Your task to perform on an android device: open sync settings in chrome Image 0: 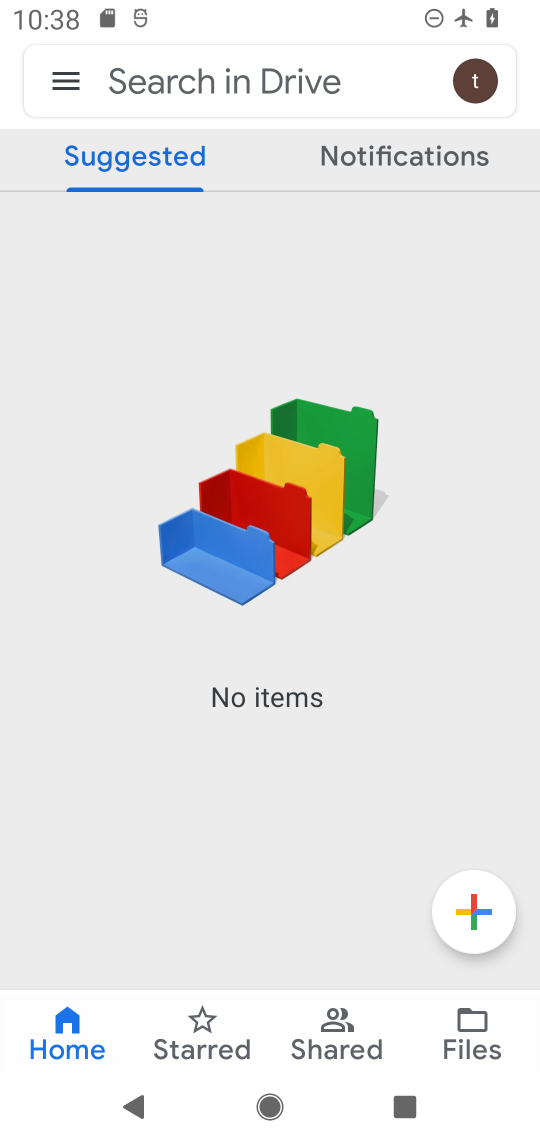
Step 0: press home button
Your task to perform on an android device: open sync settings in chrome Image 1: 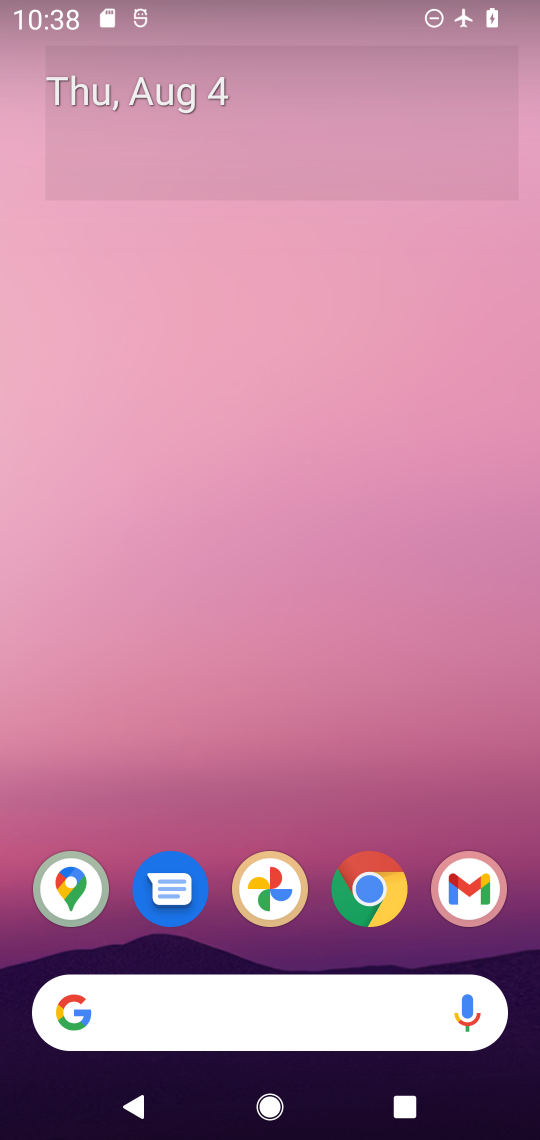
Step 1: drag from (327, 727) to (330, 236)
Your task to perform on an android device: open sync settings in chrome Image 2: 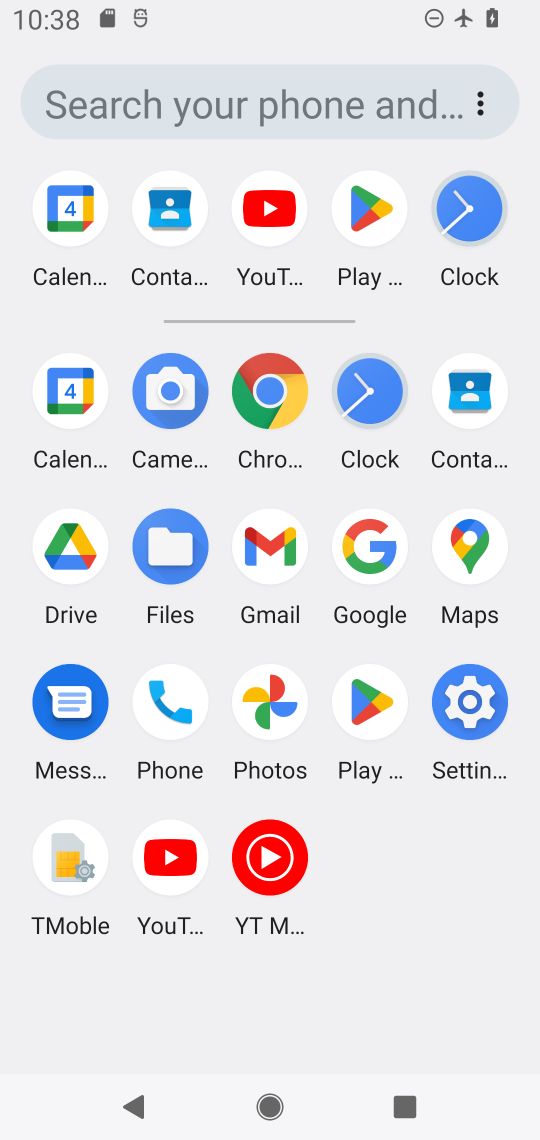
Step 2: click (270, 385)
Your task to perform on an android device: open sync settings in chrome Image 3: 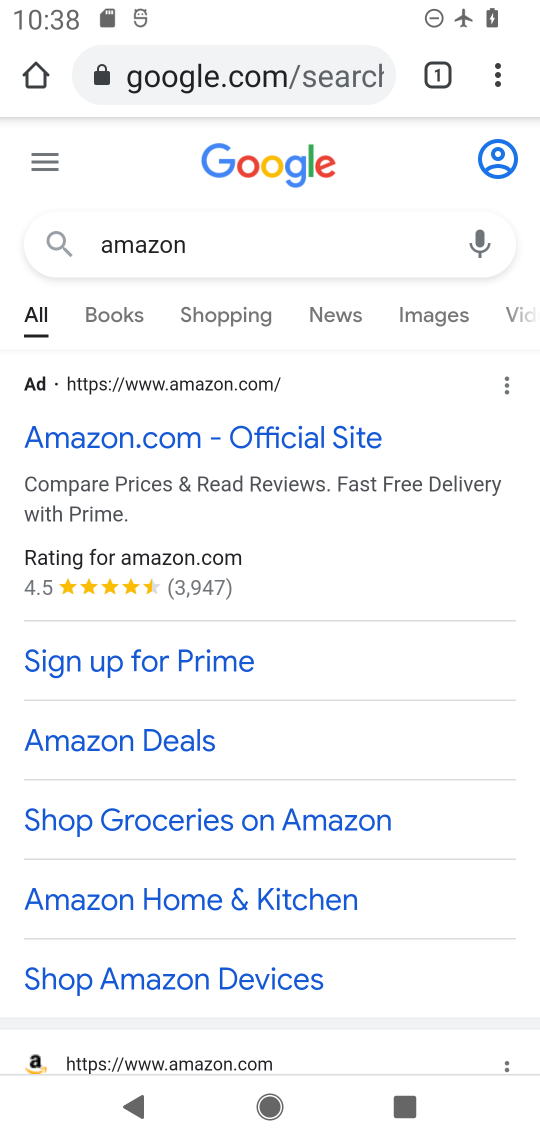
Step 3: click (501, 82)
Your task to perform on an android device: open sync settings in chrome Image 4: 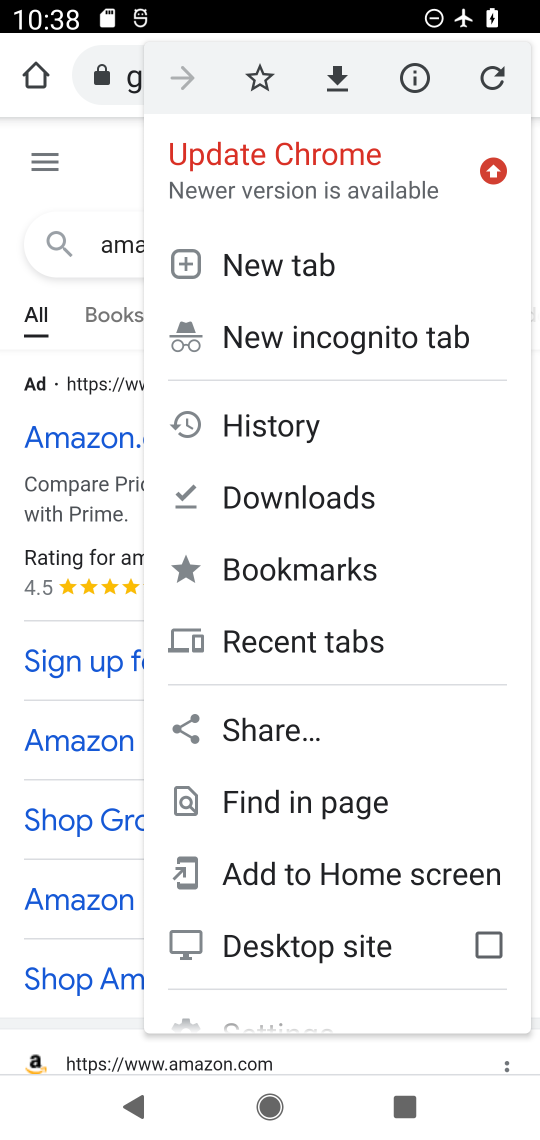
Step 4: drag from (454, 644) to (464, 429)
Your task to perform on an android device: open sync settings in chrome Image 5: 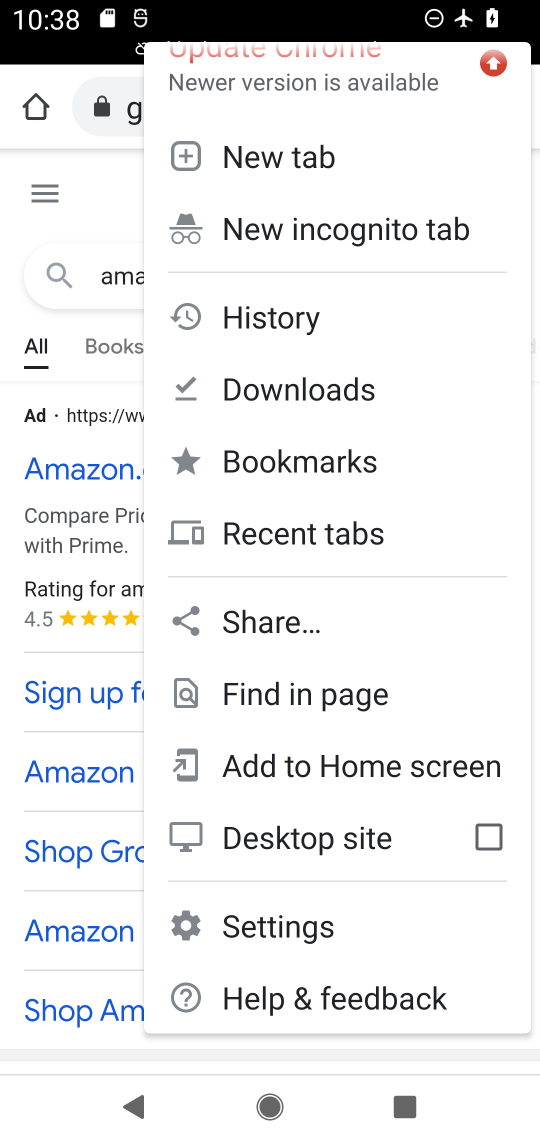
Step 5: click (287, 919)
Your task to perform on an android device: open sync settings in chrome Image 6: 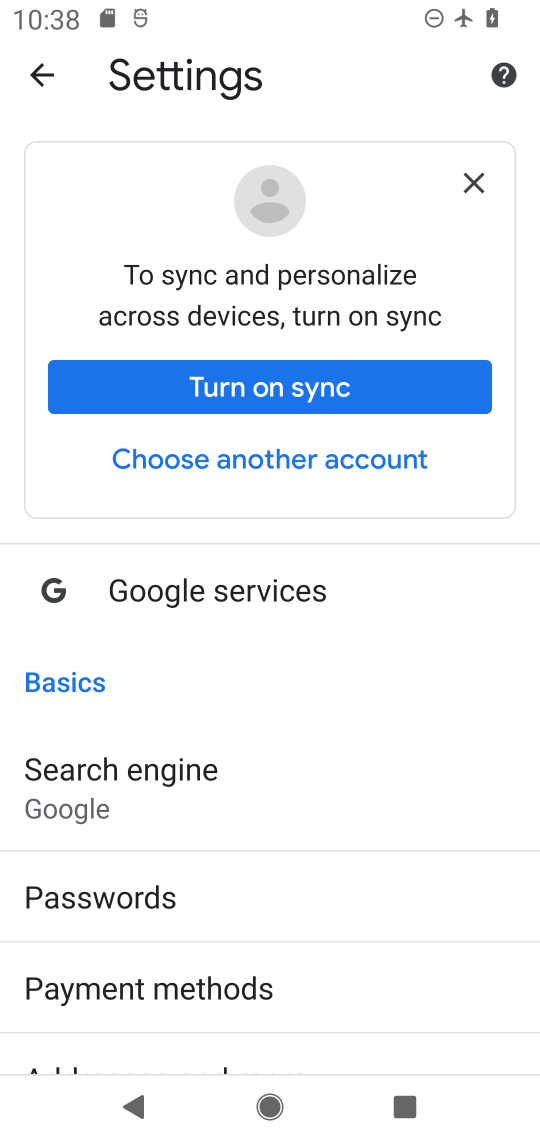
Step 6: drag from (395, 923) to (413, 703)
Your task to perform on an android device: open sync settings in chrome Image 7: 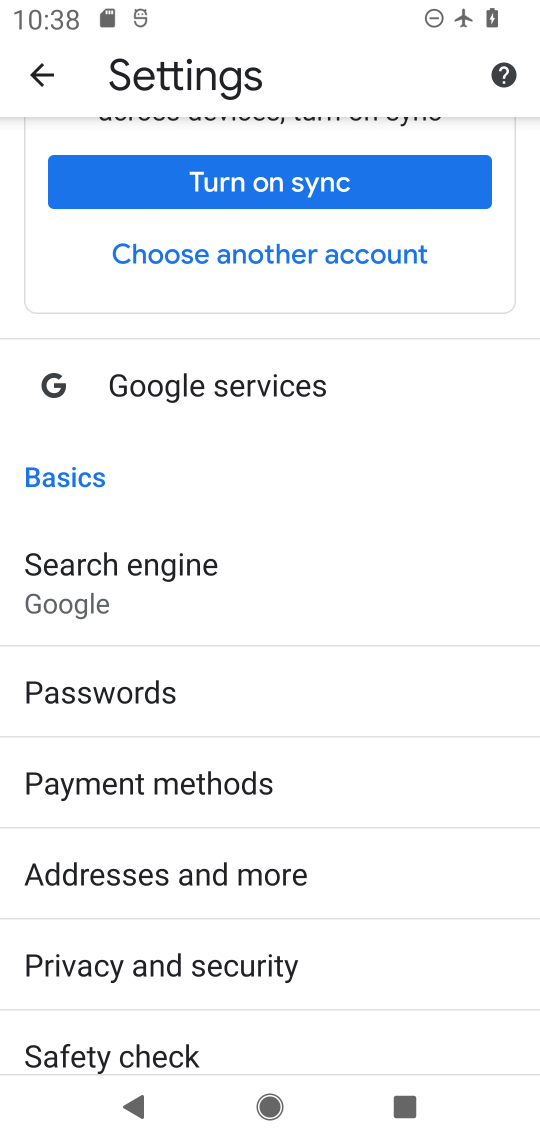
Step 7: drag from (411, 974) to (412, 753)
Your task to perform on an android device: open sync settings in chrome Image 8: 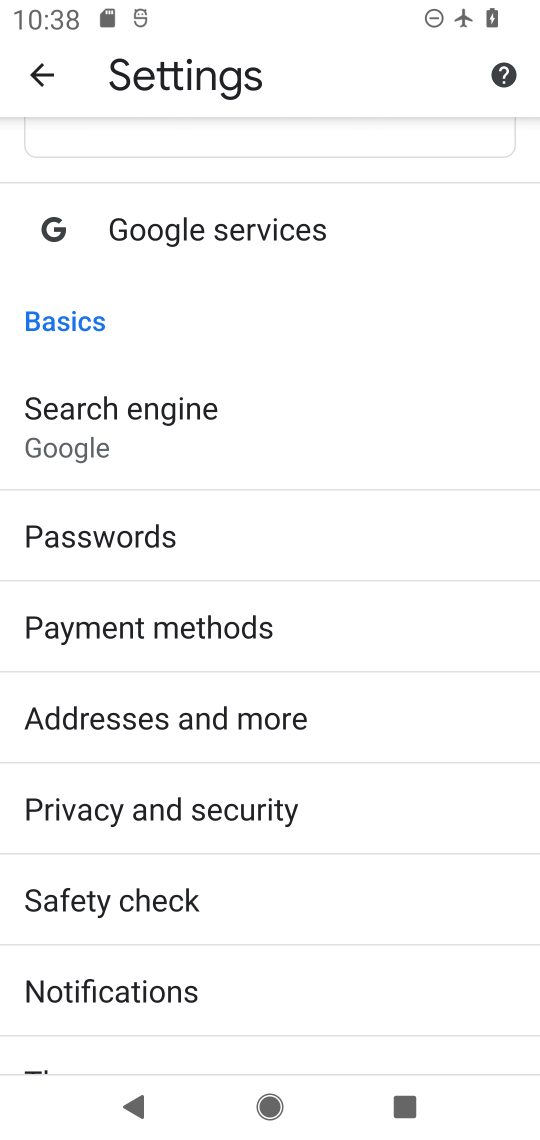
Step 8: drag from (390, 969) to (404, 766)
Your task to perform on an android device: open sync settings in chrome Image 9: 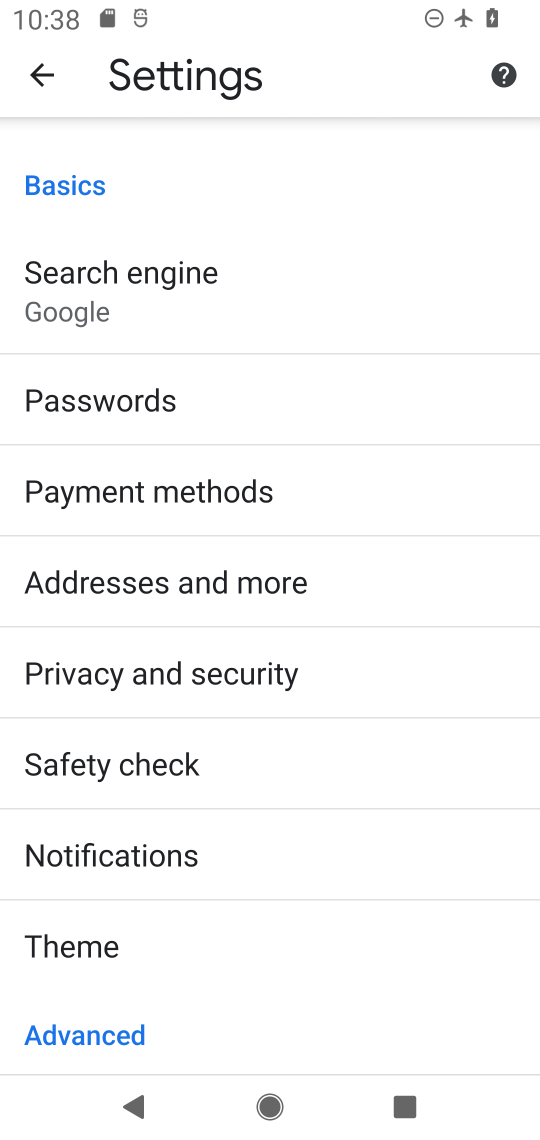
Step 9: drag from (388, 874) to (421, 689)
Your task to perform on an android device: open sync settings in chrome Image 10: 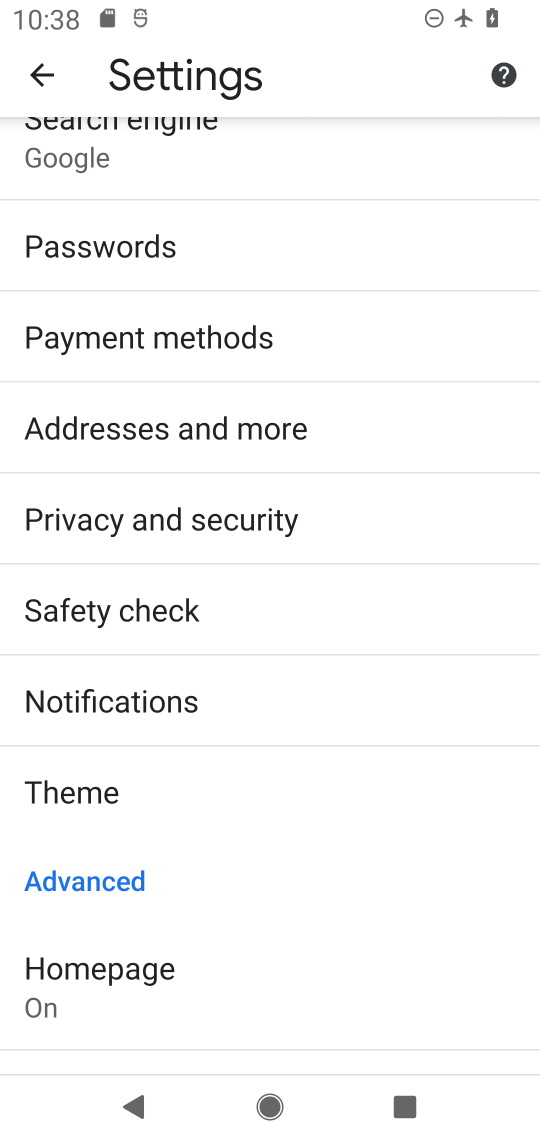
Step 10: drag from (384, 892) to (379, 729)
Your task to perform on an android device: open sync settings in chrome Image 11: 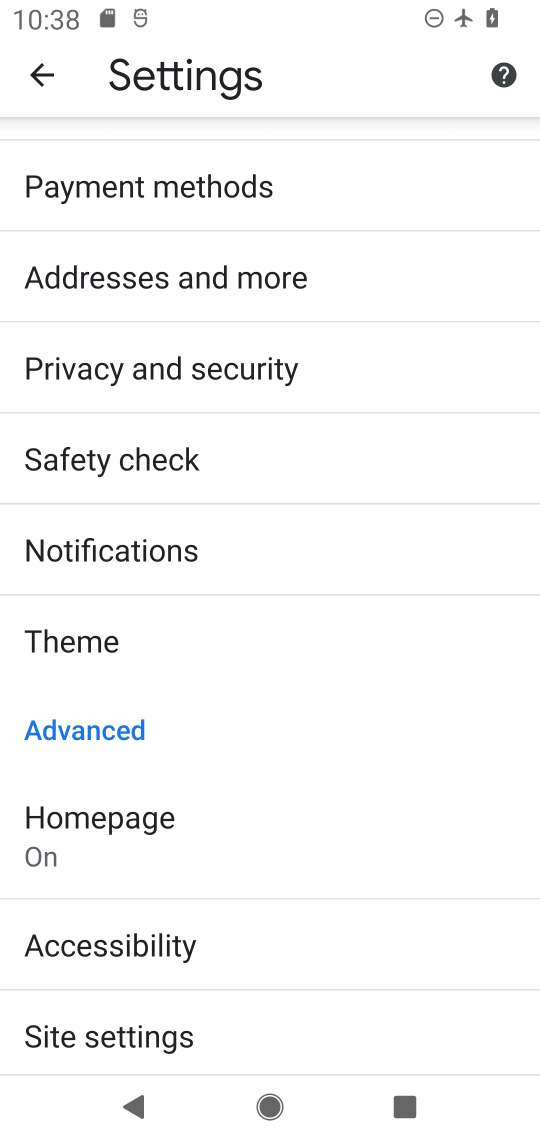
Step 11: drag from (377, 935) to (382, 749)
Your task to perform on an android device: open sync settings in chrome Image 12: 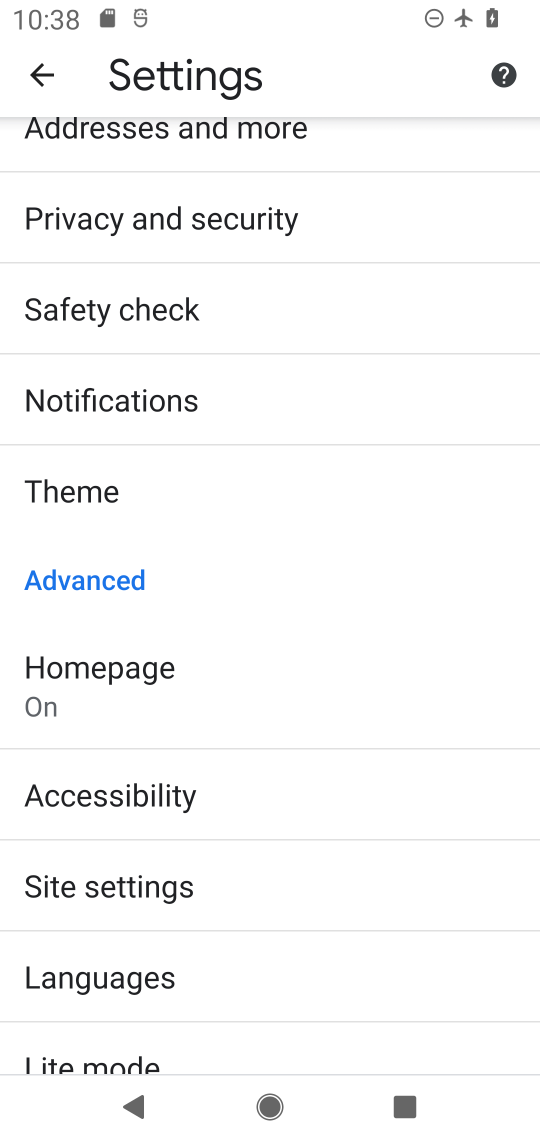
Step 12: drag from (367, 953) to (374, 747)
Your task to perform on an android device: open sync settings in chrome Image 13: 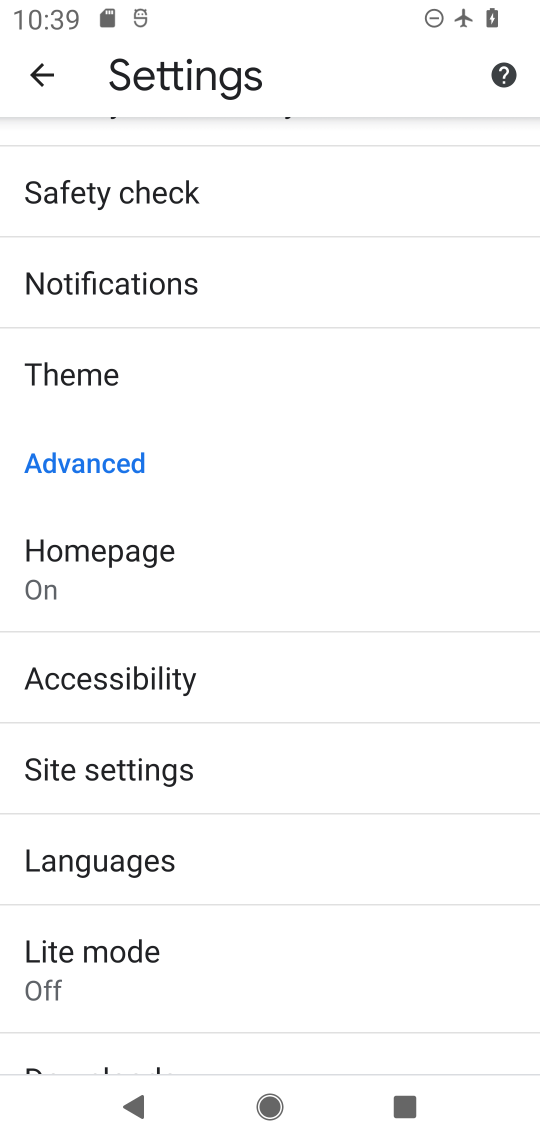
Step 13: drag from (361, 976) to (362, 727)
Your task to perform on an android device: open sync settings in chrome Image 14: 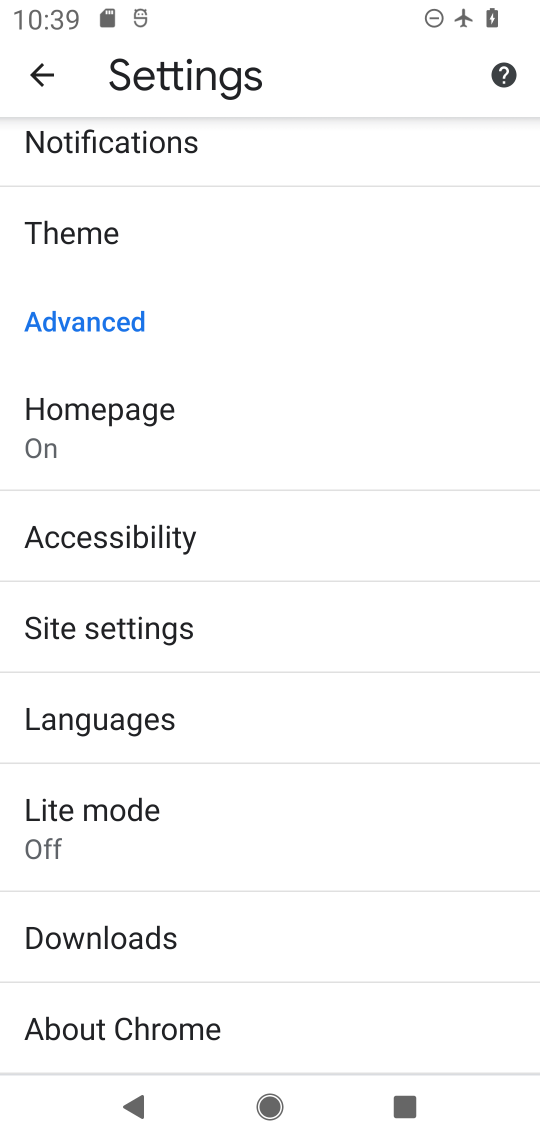
Step 14: click (272, 616)
Your task to perform on an android device: open sync settings in chrome Image 15: 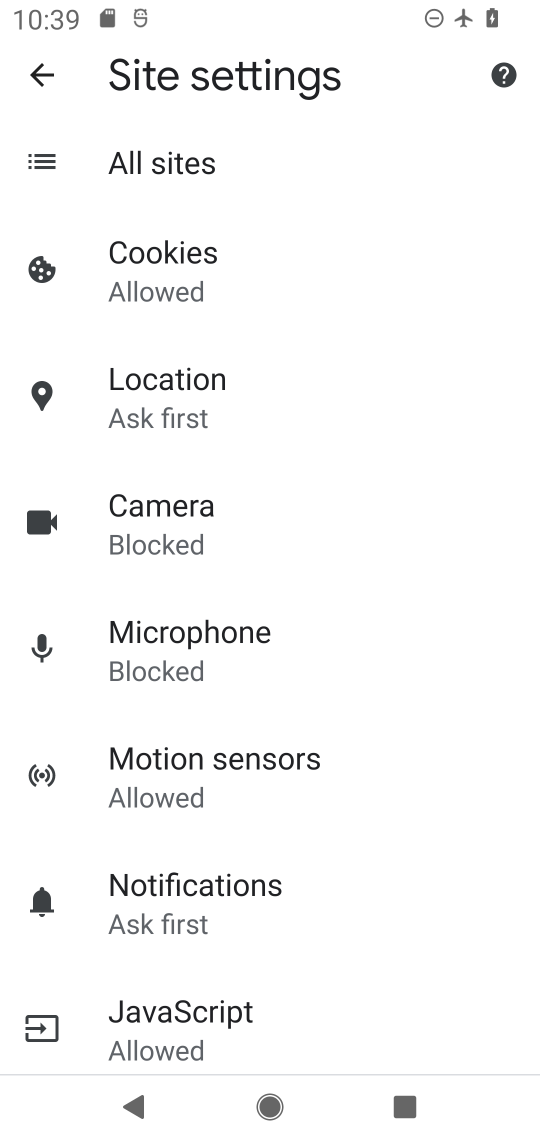
Step 15: drag from (387, 788) to (423, 587)
Your task to perform on an android device: open sync settings in chrome Image 16: 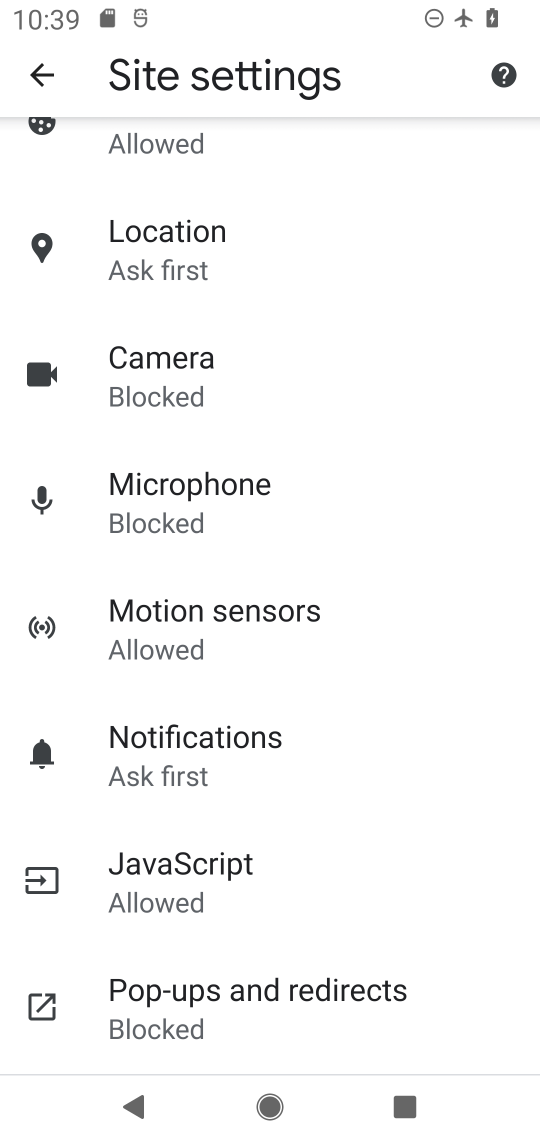
Step 16: drag from (432, 844) to (438, 635)
Your task to perform on an android device: open sync settings in chrome Image 17: 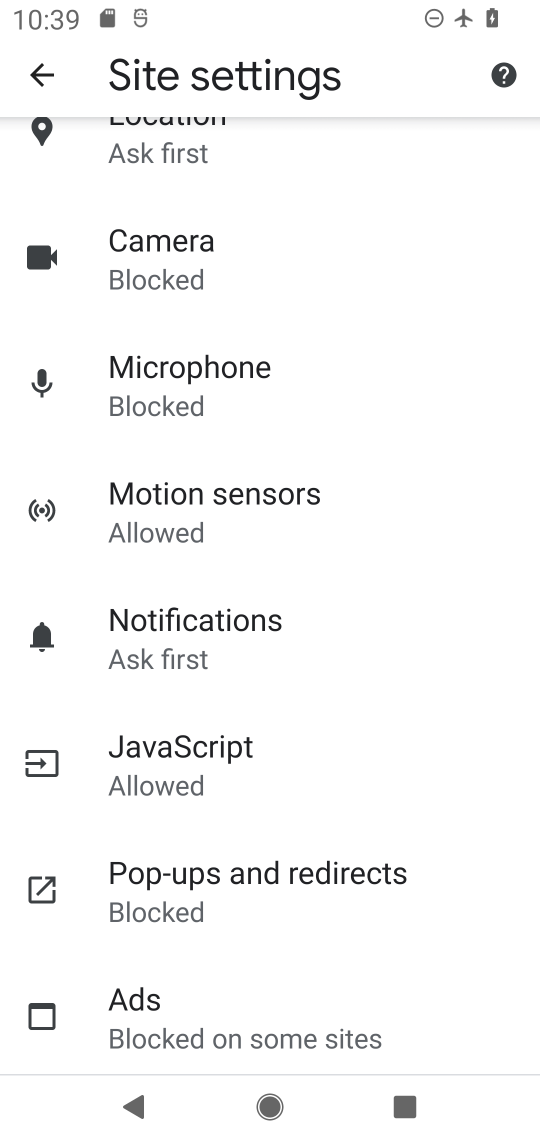
Step 17: drag from (486, 896) to (464, 699)
Your task to perform on an android device: open sync settings in chrome Image 18: 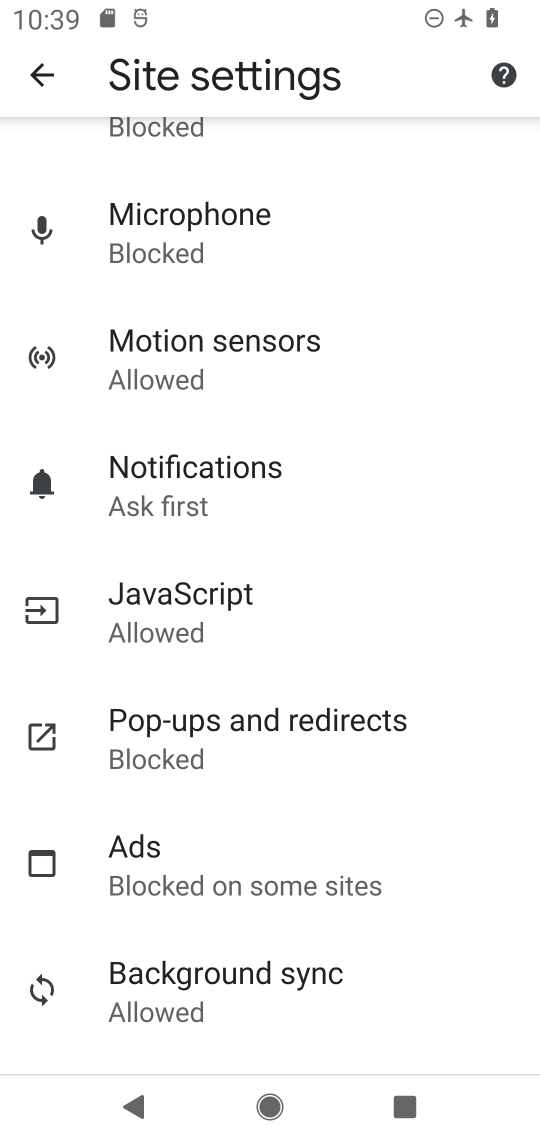
Step 18: drag from (452, 999) to (459, 737)
Your task to perform on an android device: open sync settings in chrome Image 19: 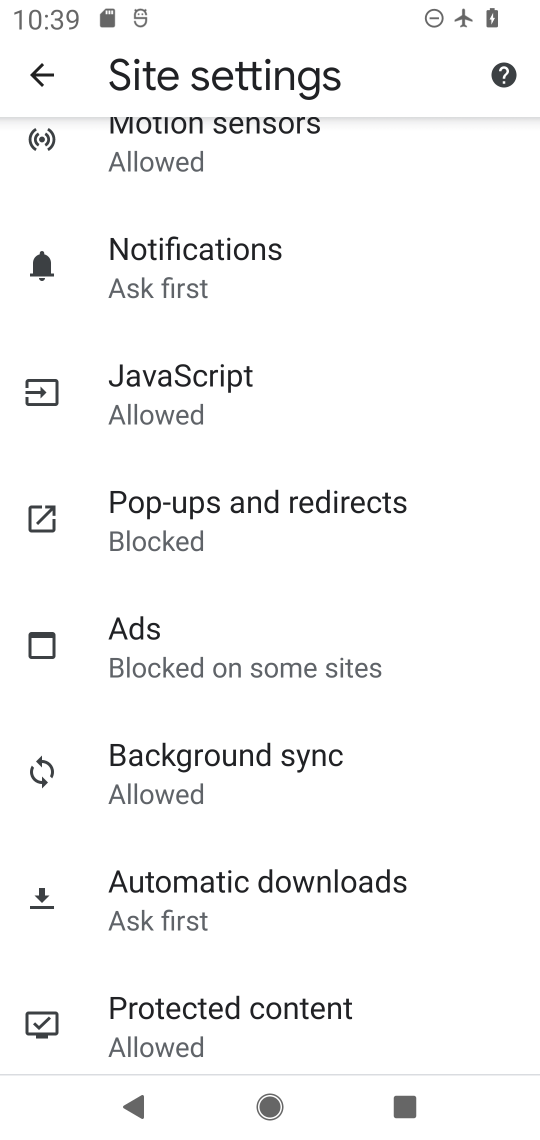
Step 19: click (297, 761)
Your task to perform on an android device: open sync settings in chrome Image 20: 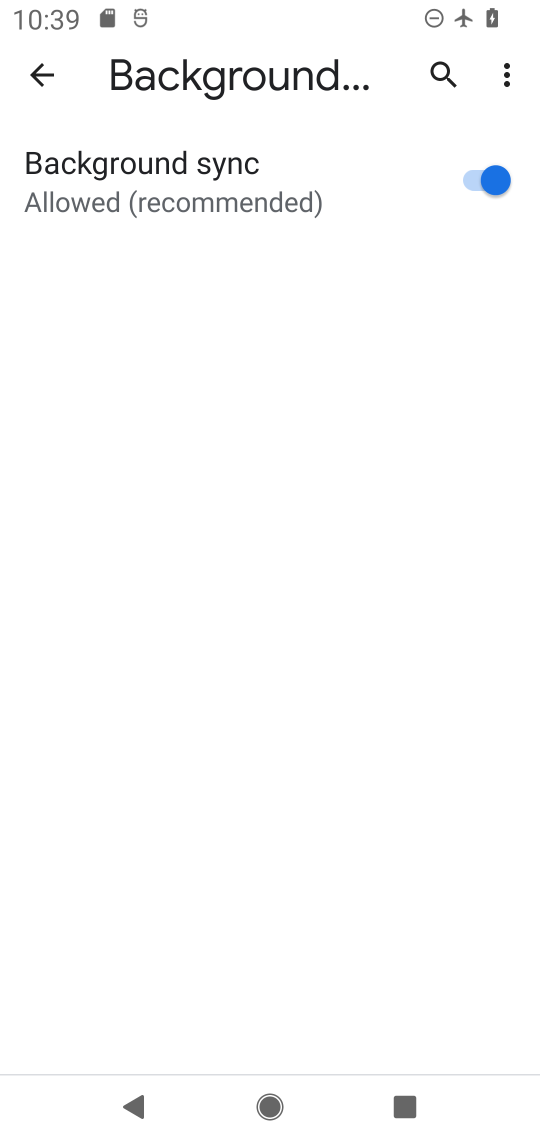
Step 20: task complete